Your task to perform on an android device: Go to sound settings Image 0: 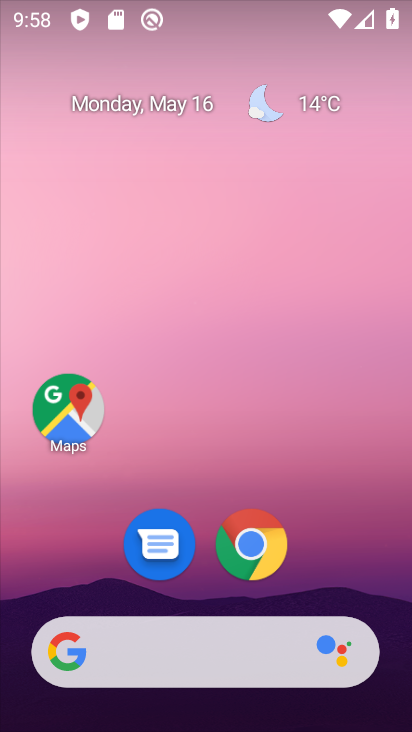
Step 0: drag from (313, 587) to (339, 164)
Your task to perform on an android device: Go to sound settings Image 1: 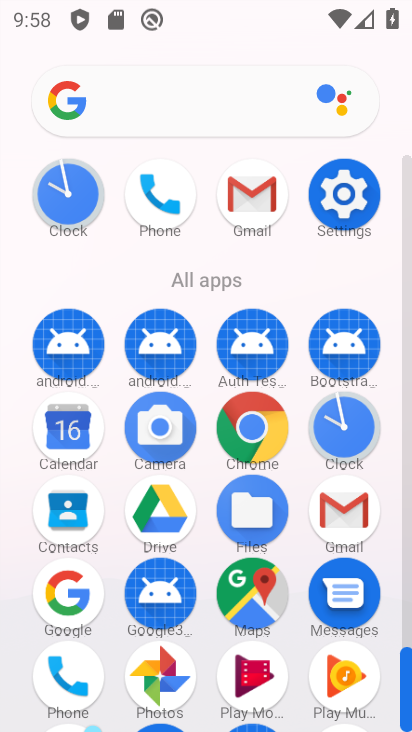
Step 1: click (331, 210)
Your task to perform on an android device: Go to sound settings Image 2: 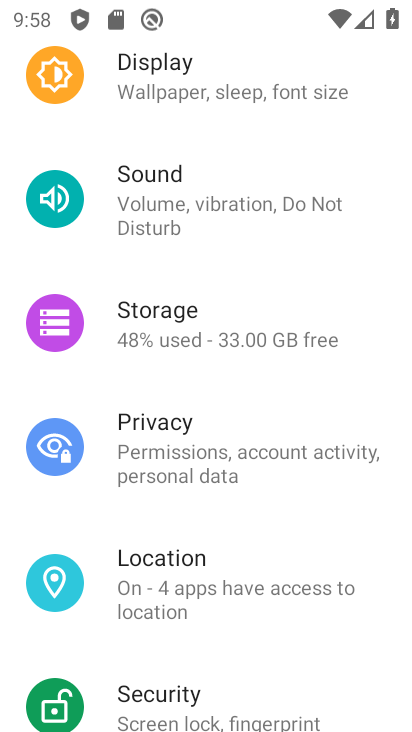
Step 2: click (135, 204)
Your task to perform on an android device: Go to sound settings Image 3: 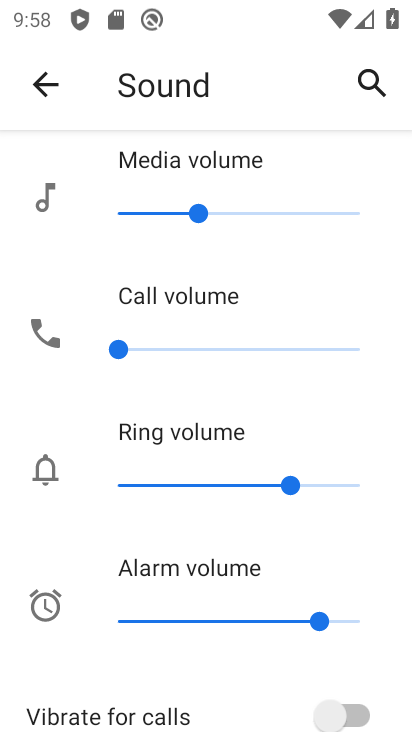
Step 3: task complete